Your task to perform on an android device: clear all cookies in the chrome app Image 0: 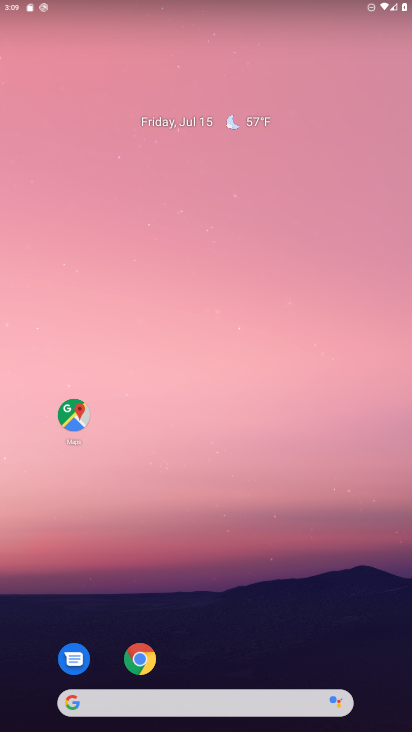
Step 0: drag from (226, 673) to (224, 46)
Your task to perform on an android device: clear all cookies in the chrome app Image 1: 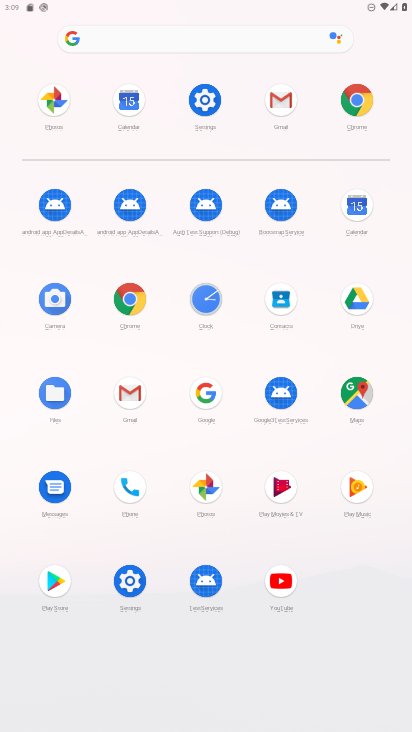
Step 1: click (130, 308)
Your task to perform on an android device: clear all cookies in the chrome app Image 2: 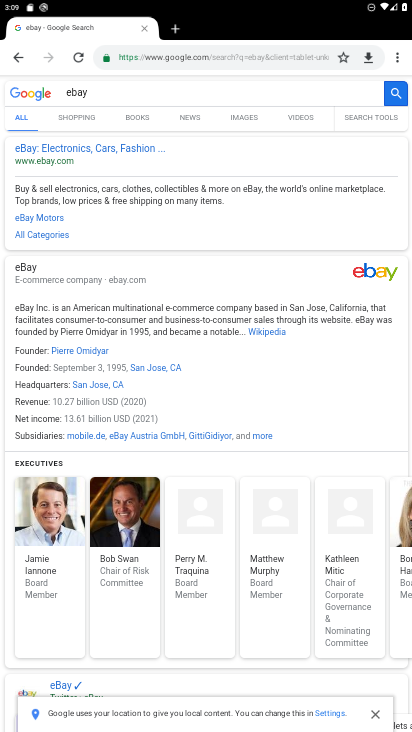
Step 2: click (400, 57)
Your task to perform on an android device: clear all cookies in the chrome app Image 3: 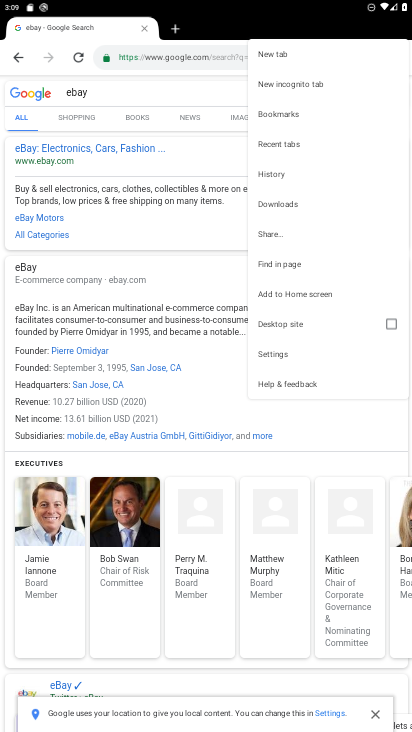
Step 3: click (277, 176)
Your task to perform on an android device: clear all cookies in the chrome app Image 4: 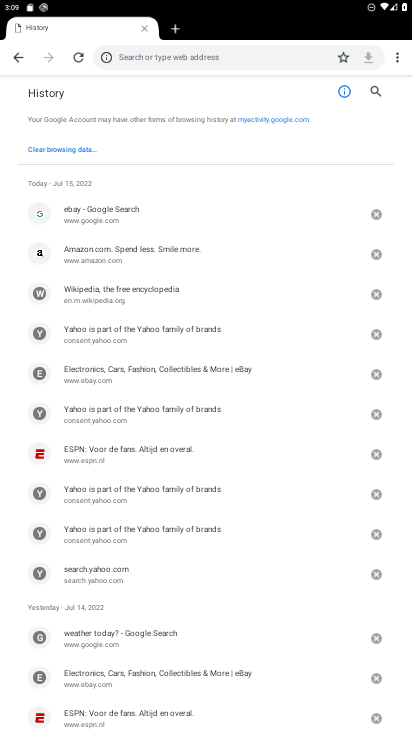
Step 4: click (76, 152)
Your task to perform on an android device: clear all cookies in the chrome app Image 5: 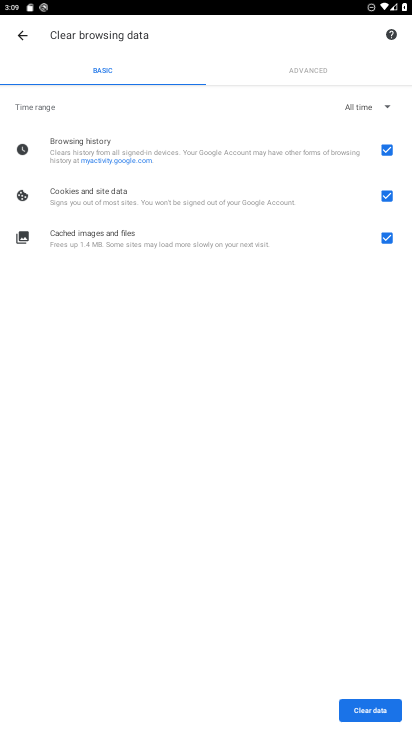
Step 5: click (365, 152)
Your task to perform on an android device: clear all cookies in the chrome app Image 6: 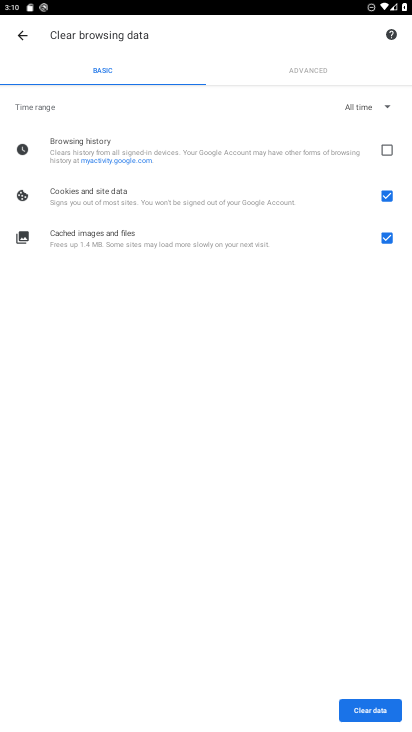
Step 6: click (381, 243)
Your task to perform on an android device: clear all cookies in the chrome app Image 7: 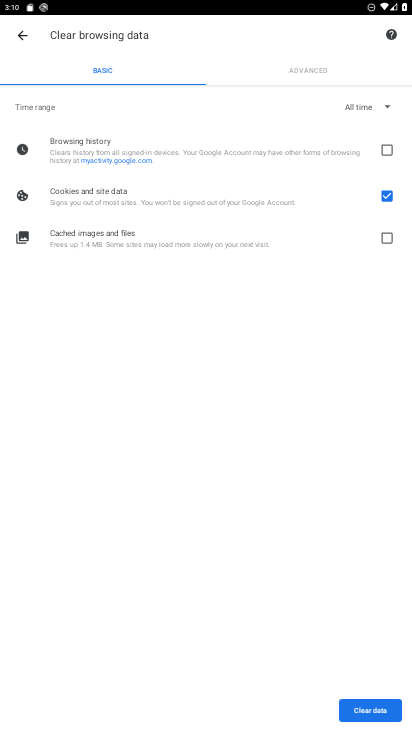
Step 7: click (371, 719)
Your task to perform on an android device: clear all cookies in the chrome app Image 8: 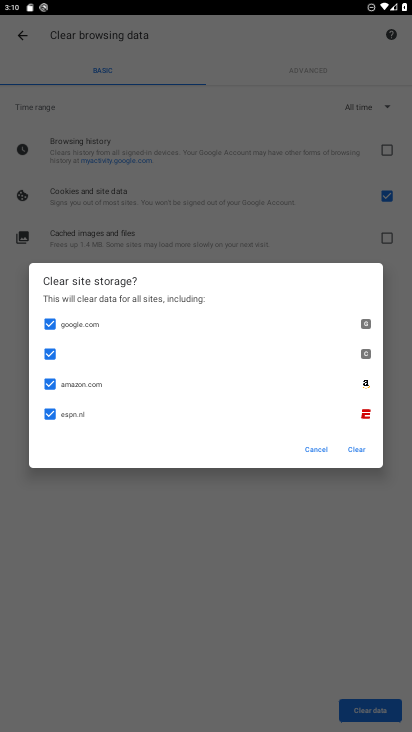
Step 8: click (360, 450)
Your task to perform on an android device: clear all cookies in the chrome app Image 9: 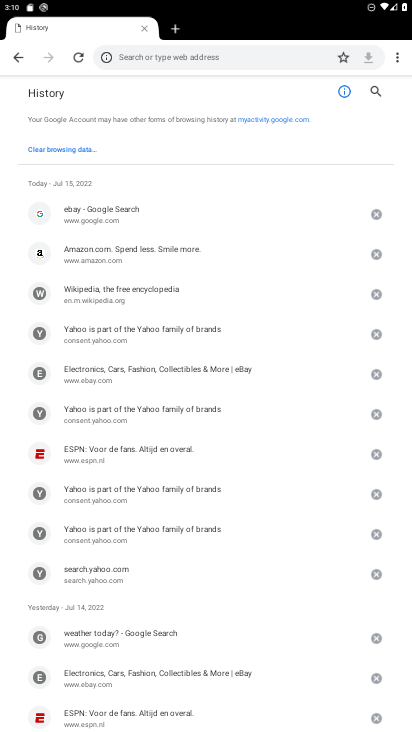
Step 9: task complete